Your task to perform on an android device: Open sound settings Image 0: 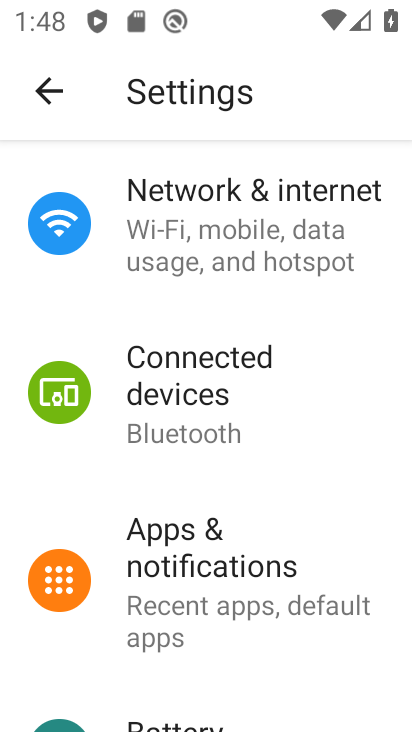
Step 0: press home button
Your task to perform on an android device: Open sound settings Image 1: 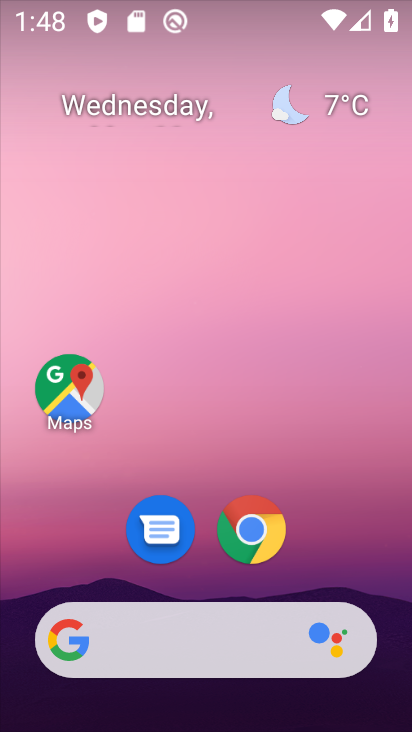
Step 1: drag from (67, 567) to (254, 131)
Your task to perform on an android device: Open sound settings Image 2: 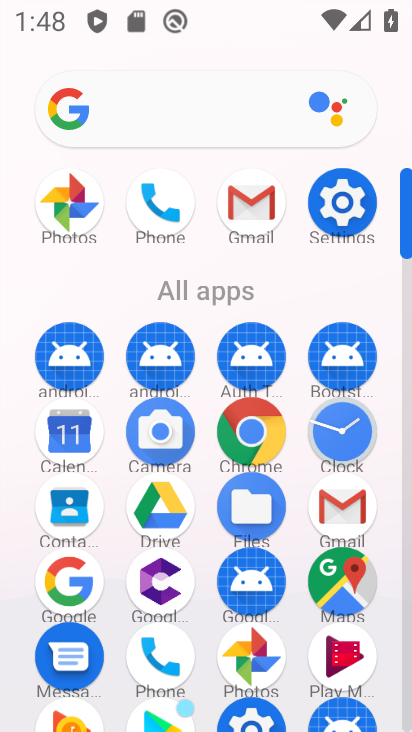
Step 2: click (354, 203)
Your task to perform on an android device: Open sound settings Image 3: 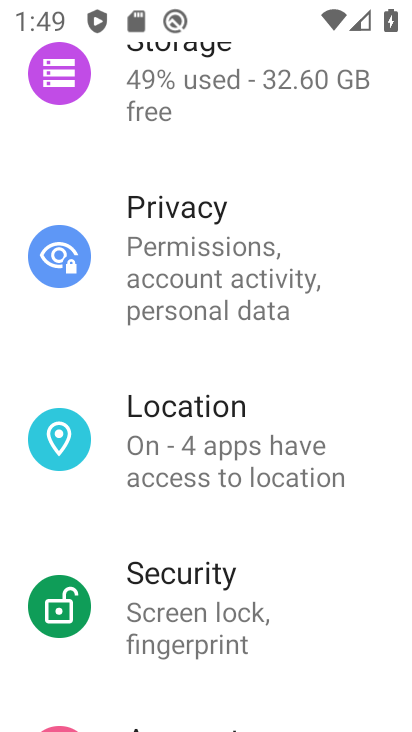
Step 3: drag from (160, 139) to (151, 566)
Your task to perform on an android device: Open sound settings Image 4: 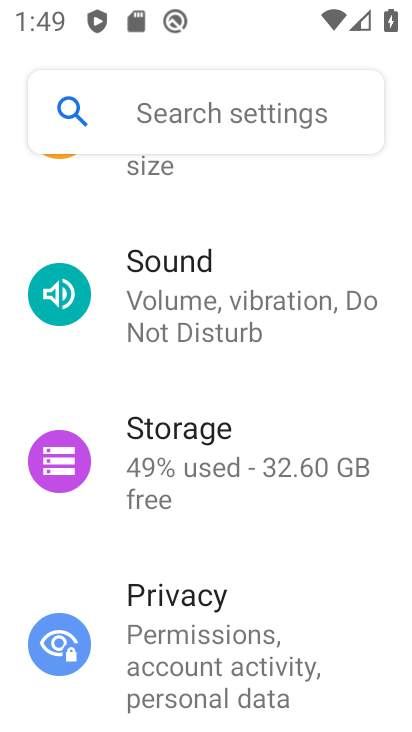
Step 4: click (145, 297)
Your task to perform on an android device: Open sound settings Image 5: 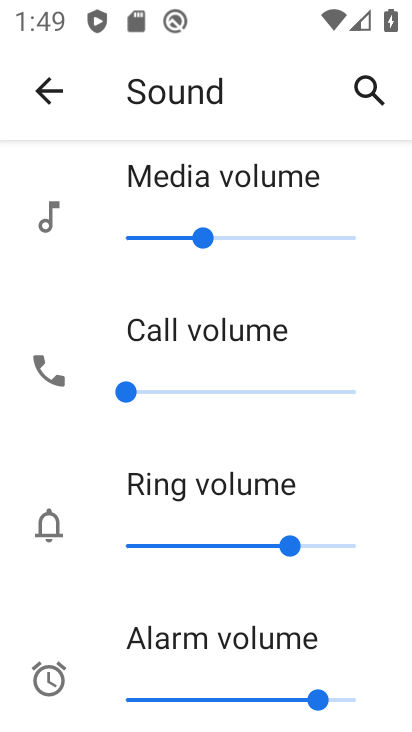
Step 5: task complete